Your task to perform on an android device: Add lenovo thinkpad to the cart on ebay, then select checkout. Image 0: 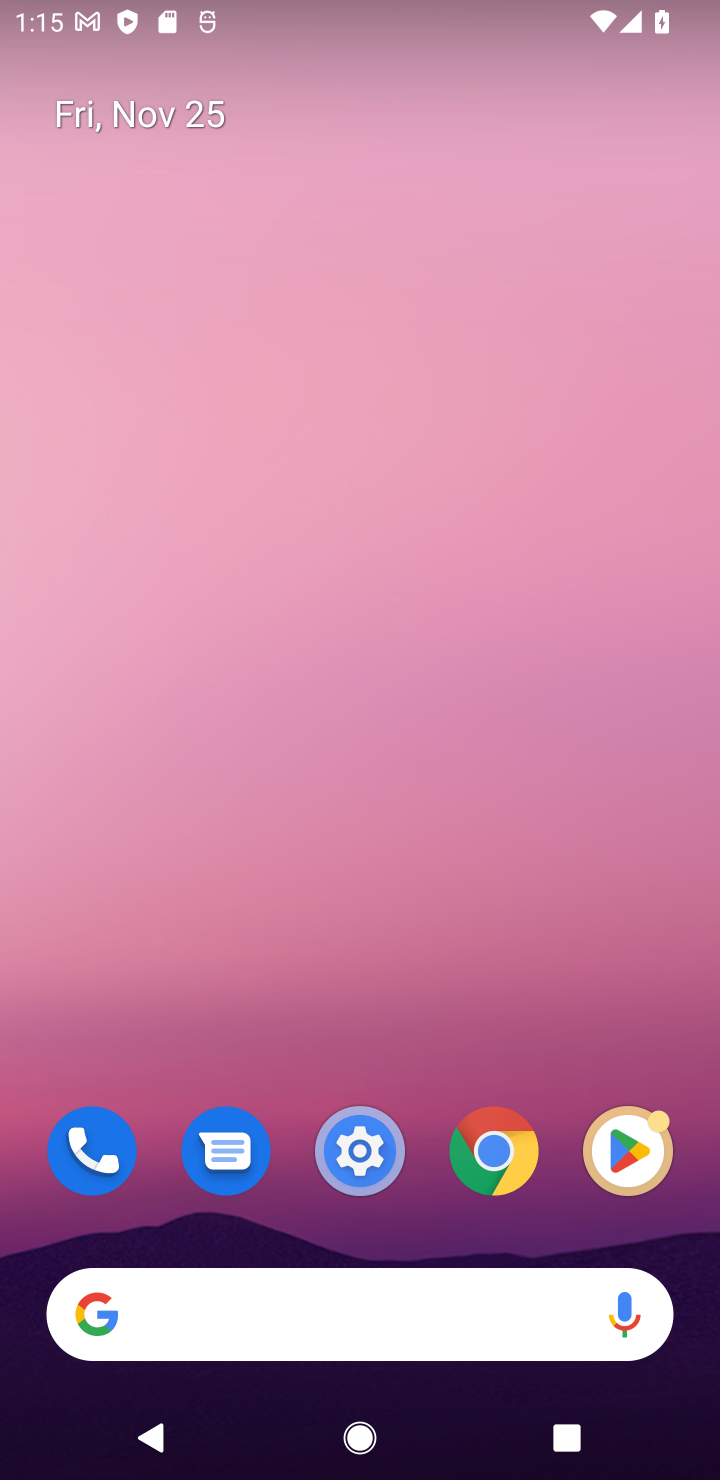
Step 0: click (325, 1286)
Your task to perform on an android device: Add lenovo thinkpad to the cart on ebay, then select checkout. Image 1: 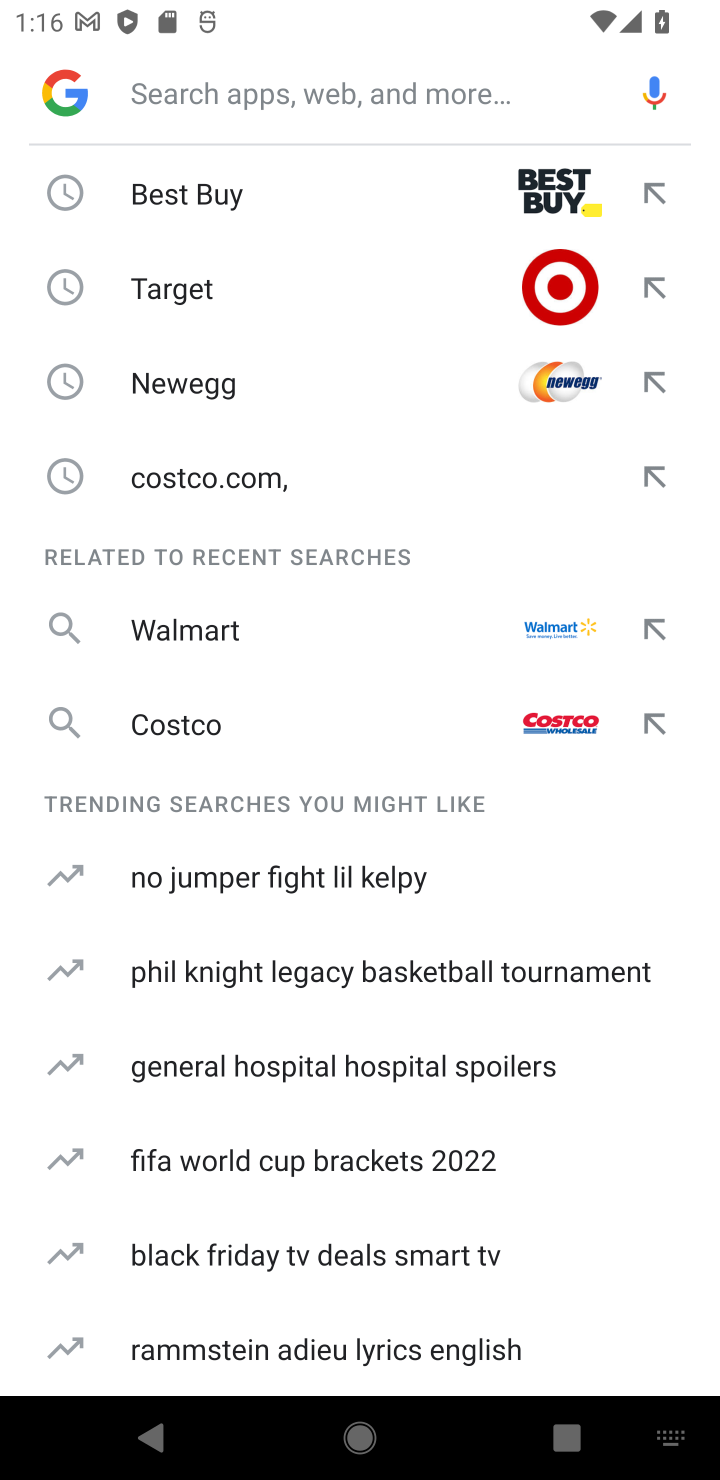
Step 1: type "ebay"
Your task to perform on an android device: Add lenovo thinkpad to the cart on ebay, then select checkout. Image 2: 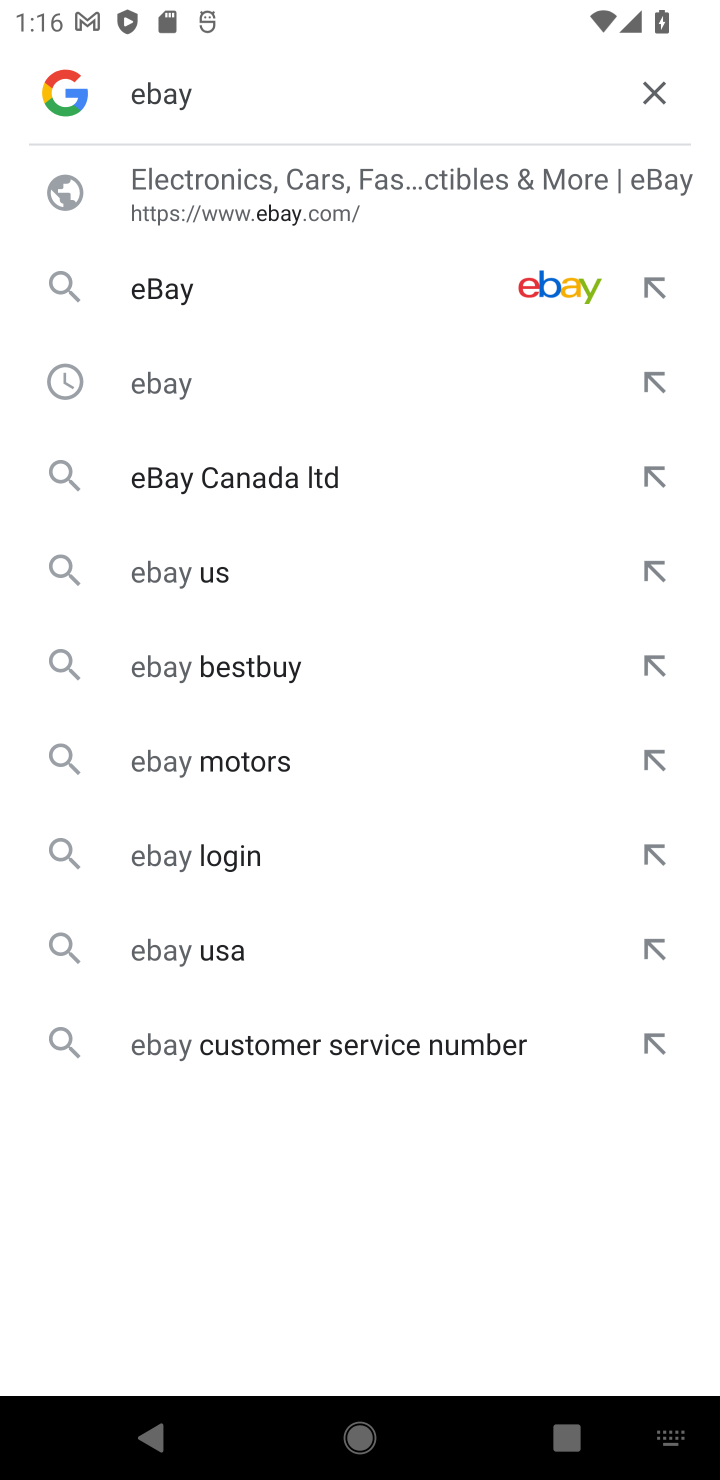
Step 2: click (229, 147)
Your task to perform on an android device: Add lenovo thinkpad to the cart on ebay, then select checkout. Image 3: 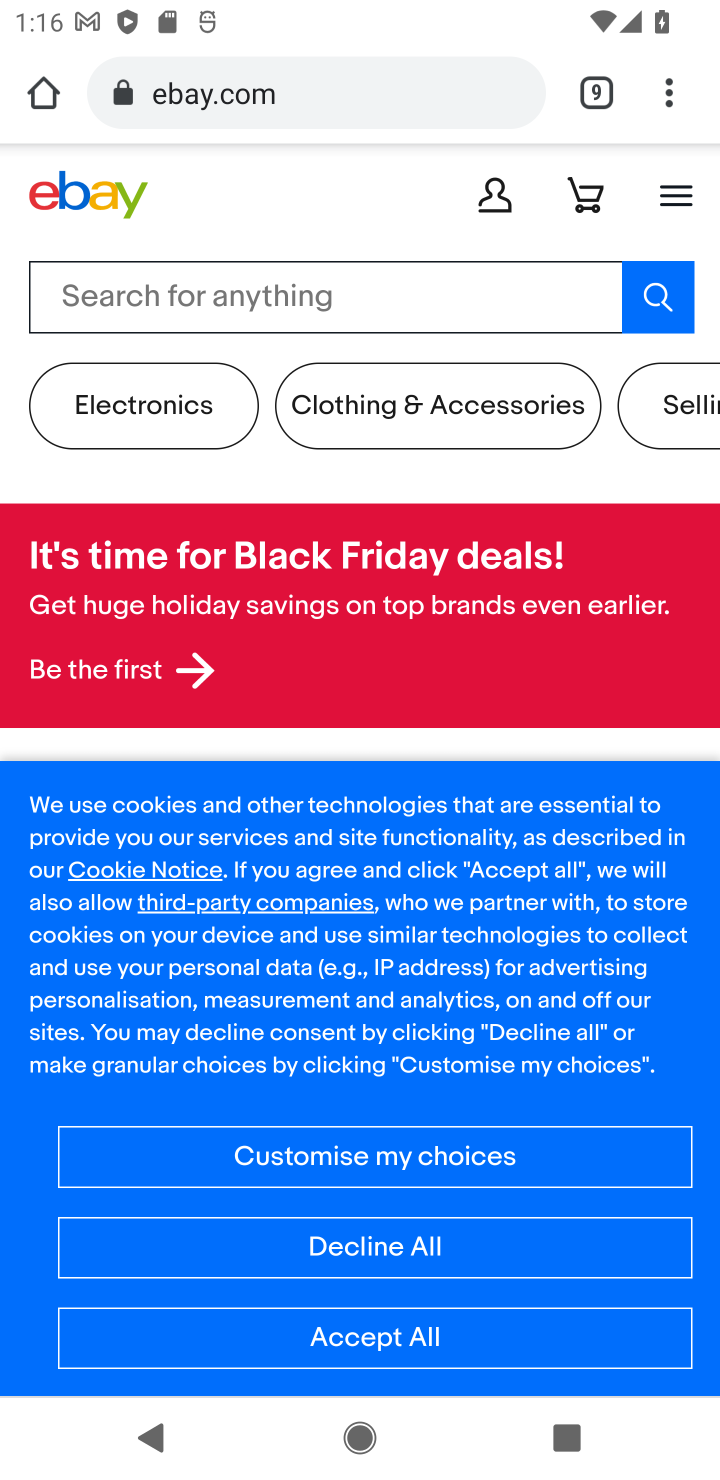
Step 3: click (239, 281)
Your task to perform on an android device: Add lenovo thinkpad to the cart on ebay, then select checkout. Image 4: 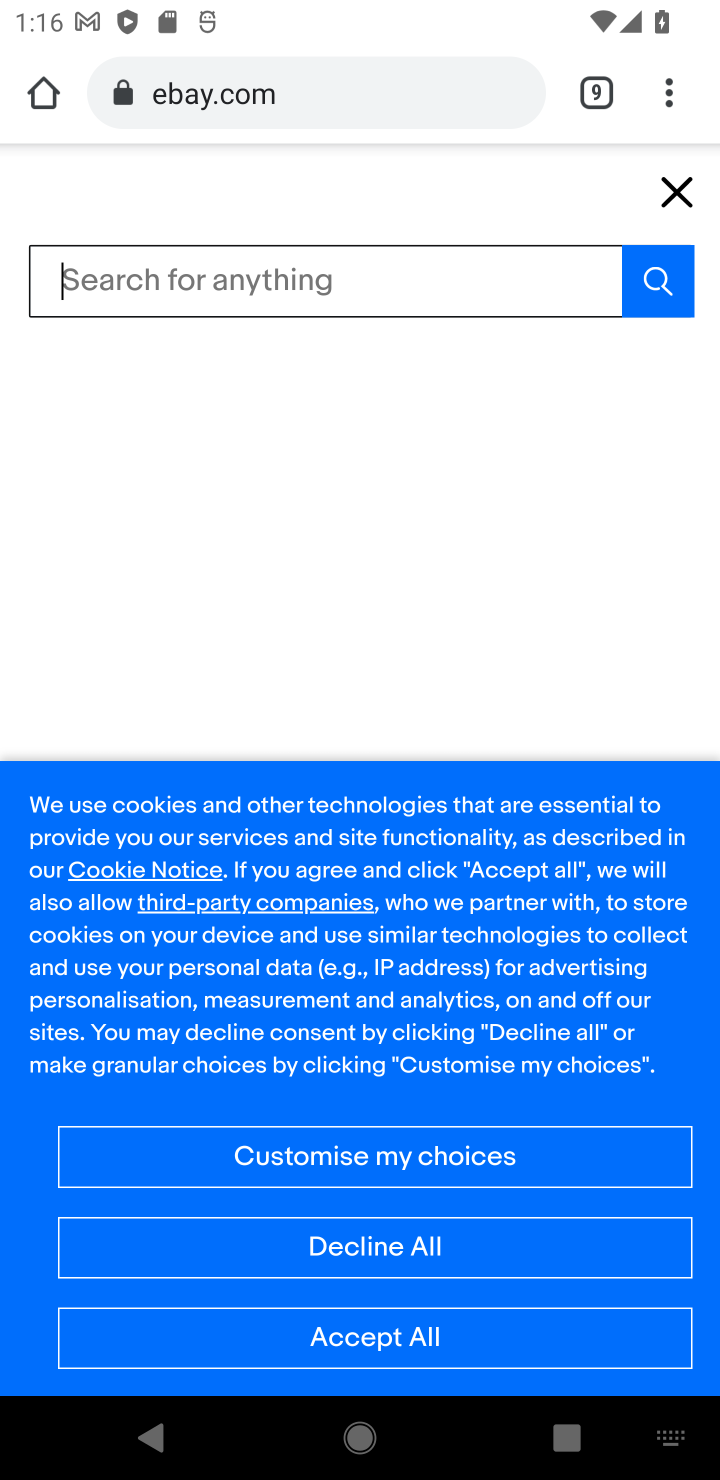
Step 4: task complete